Your task to perform on an android device: Add alienware aurora to the cart on target.com, then select checkout. Image 0: 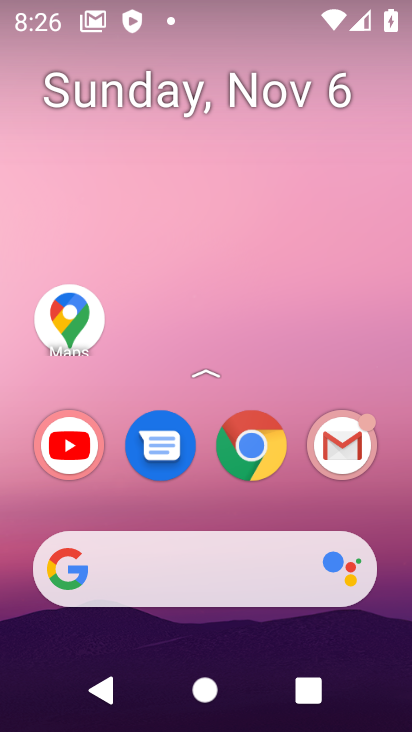
Step 0: click (248, 441)
Your task to perform on an android device: Add alienware aurora to the cart on target.com, then select checkout. Image 1: 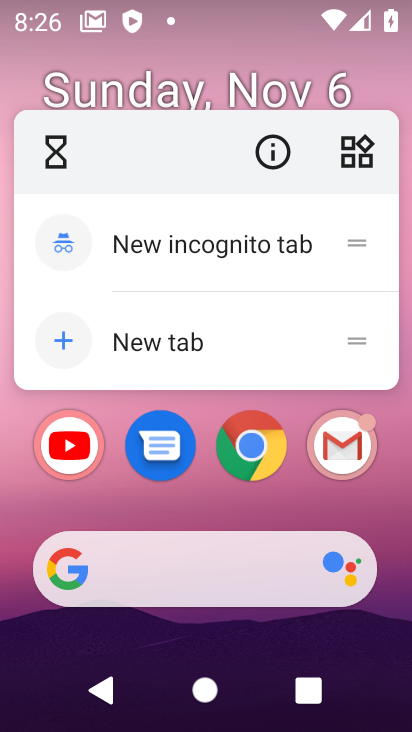
Step 1: click (248, 444)
Your task to perform on an android device: Add alienware aurora to the cart on target.com, then select checkout. Image 2: 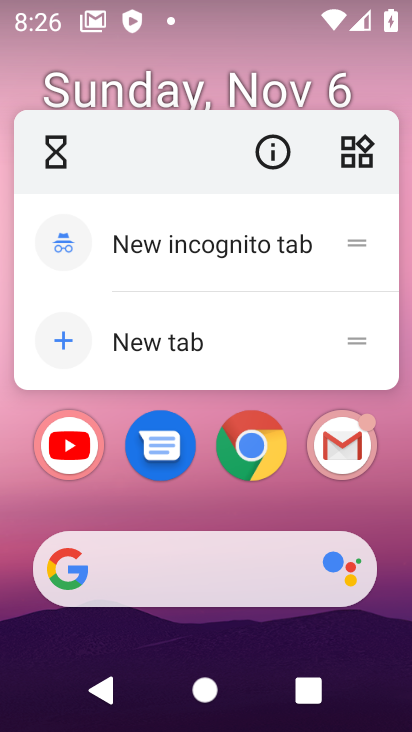
Step 2: click (248, 445)
Your task to perform on an android device: Add alienware aurora to the cart on target.com, then select checkout. Image 3: 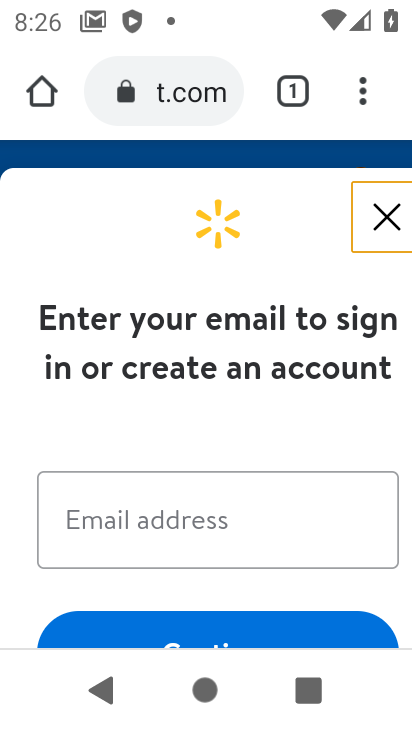
Step 3: click (186, 99)
Your task to perform on an android device: Add alienware aurora to the cart on target.com, then select checkout. Image 4: 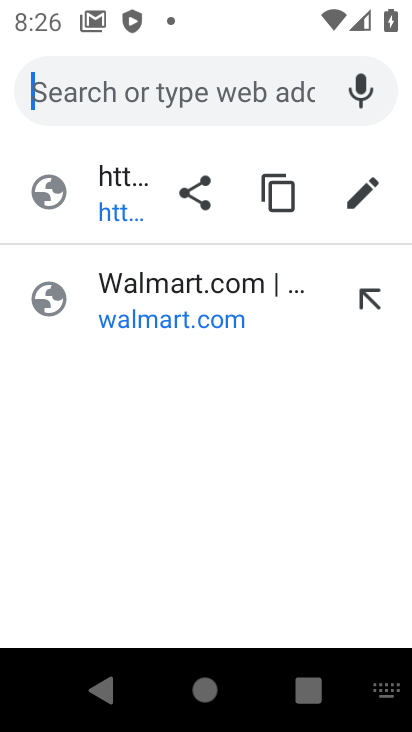
Step 4: type " target"
Your task to perform on an android device: Add alienware aurora to the cart on target.com, then select checkout. Image 5: 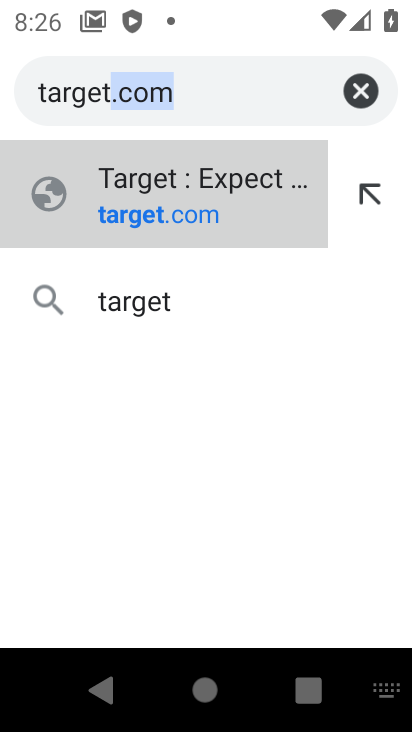
Step 5: press enter
Your task to perform on an android device: Add alienware aurora to the cart on target.com, then select checkout. Image 6: 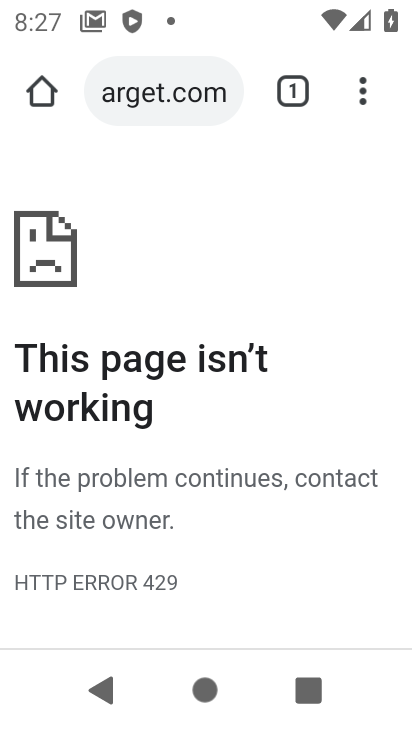
Step 6: drag from (278, 570) to (254, 91)
Your task to perform on an android device: Add alienware aurora to the cart on target.com, then select checkout. Image 7: 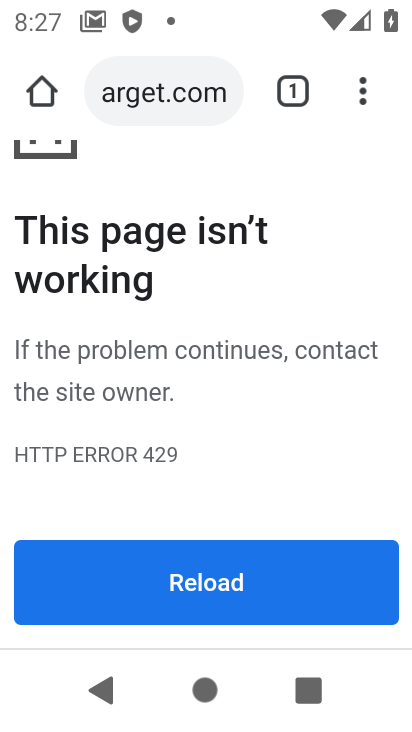
Step 7: click (227, 583)
Your task to perform on an android device: Add alienware aurora to the cart on target.com, then select checkout. Image 8: 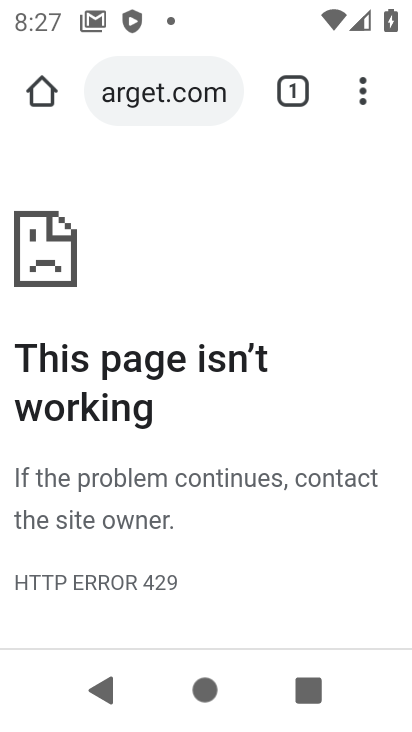
Step 8: task complete